Your task to perform on an android device: Open notification settings Image 0: 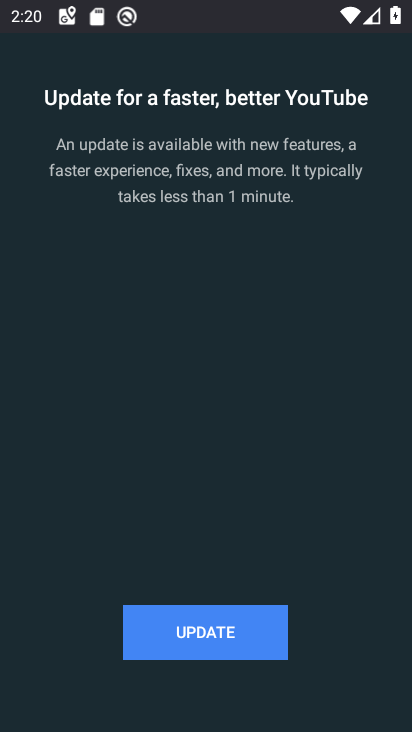
Step 0: press home button
Your task to perform on an android device: Open notification settings Image 1: 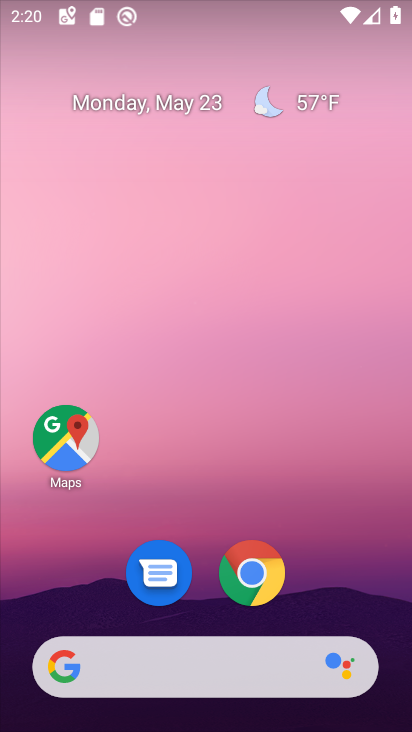
Step 1: drag from (333, 575) to (286, 82)
Your task to perform on an android device: Open notification settings Image 2: 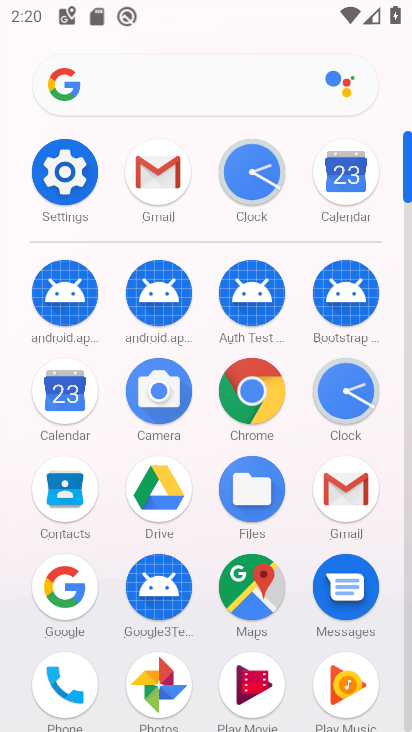
Step 2: click (65, 164)
Your task to perform on an android device: Open notification settings Image 3: 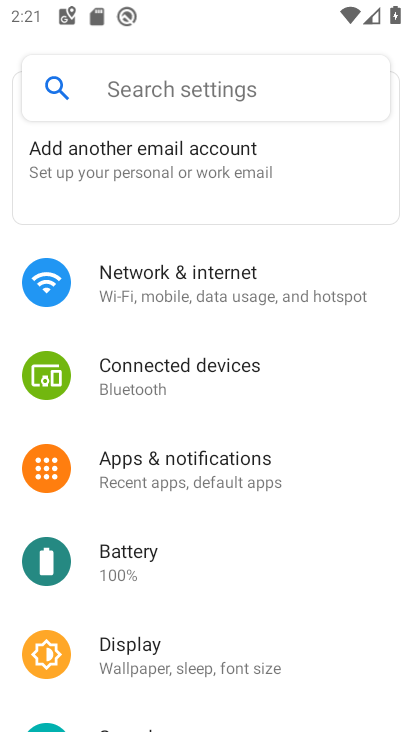
Step 3: click (189, 476)
Your task to perform on an android device: Open notification settings Image 4: 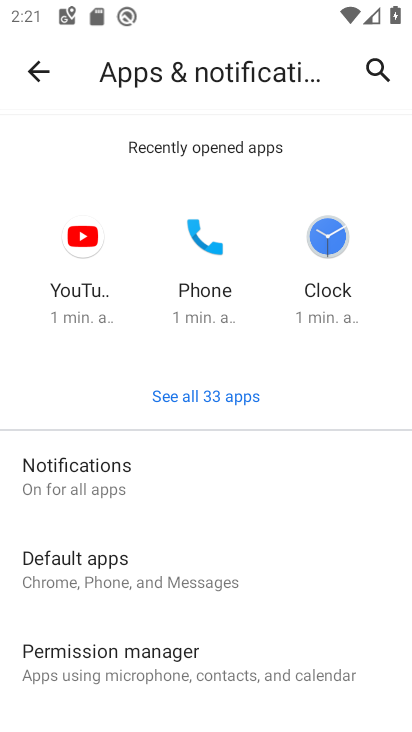
Step 4: task complete